Your task to perform on an android device: Play the last video I watched on Youtube Image 0: 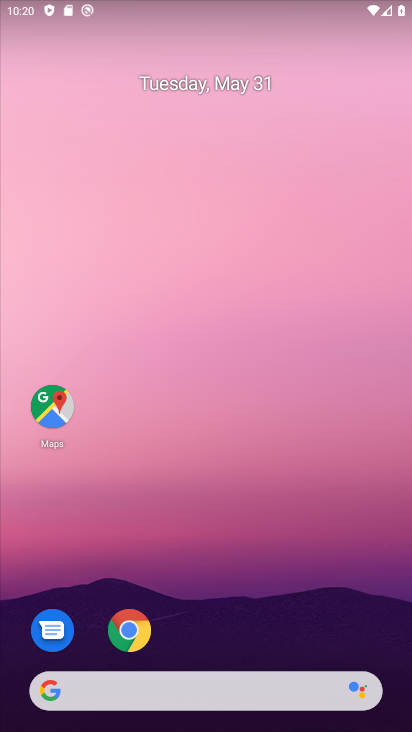
Step 0: drag from (212, 575) to (158, 188)
Your task to perform on an android device: Play the last video I watched on Youtube Image 1: 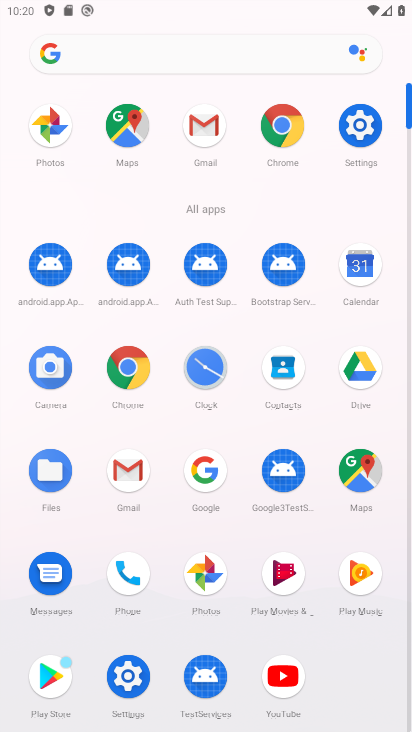
Step 1: click (273, 686)
Your task to perform on an android device: Play the last video I watched on Youtube Image 2: 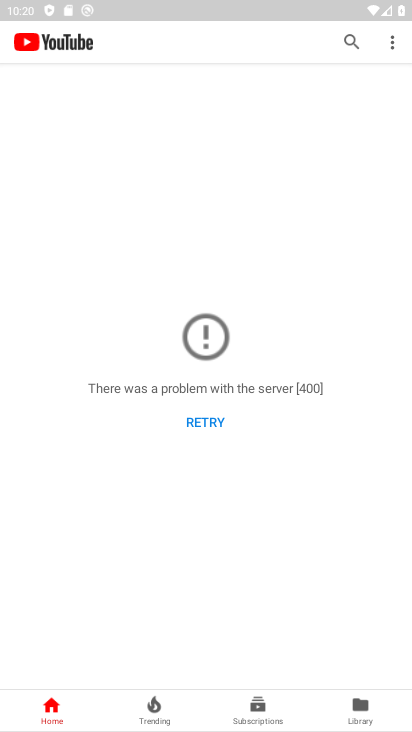
Step 2: click (211, 407)
Your task to perform on an android device: Play the last video I watched on Youtube Image 3: 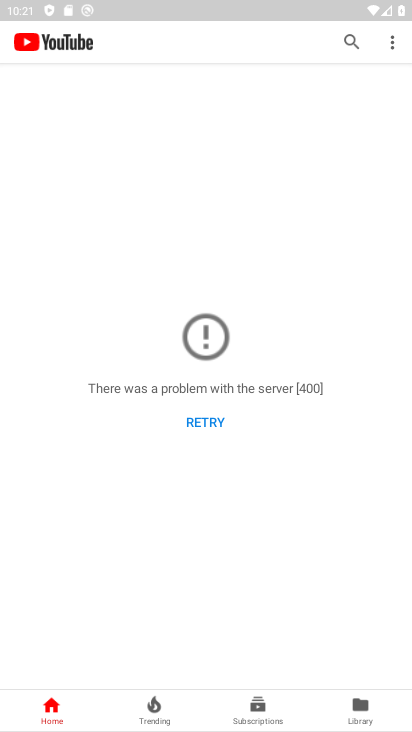
Step 3: click (352, 711)
Your task to perform on an android device: Play the last video I watched on Youtube Image 4: 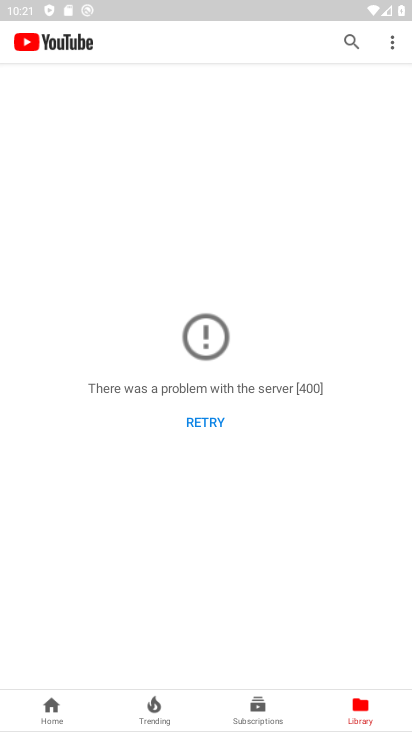
Step 4: task complete